Your task to perform on an android device: turn on javascript in the chrome app Image 0: 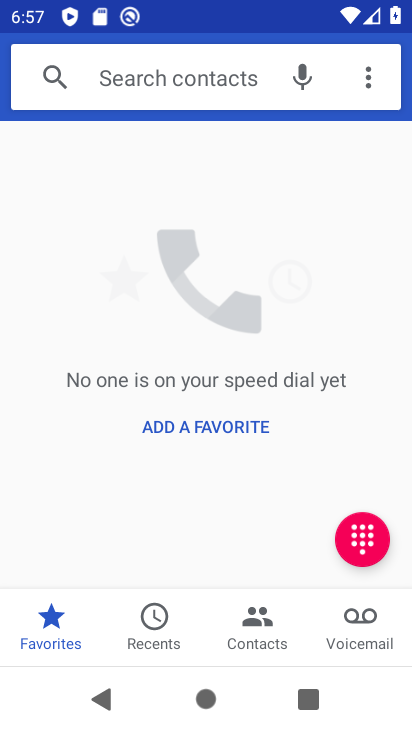
Step 0: press home button
Your task to perform on an android device: turn on javascript in the chrome app Image 1: 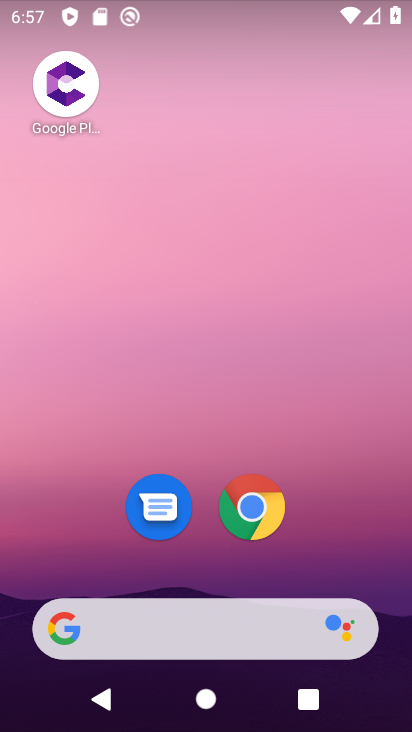
Step 1: click (260, 503)
Your task to perform on an android device: turn on javascript in the chrome app Image 2: 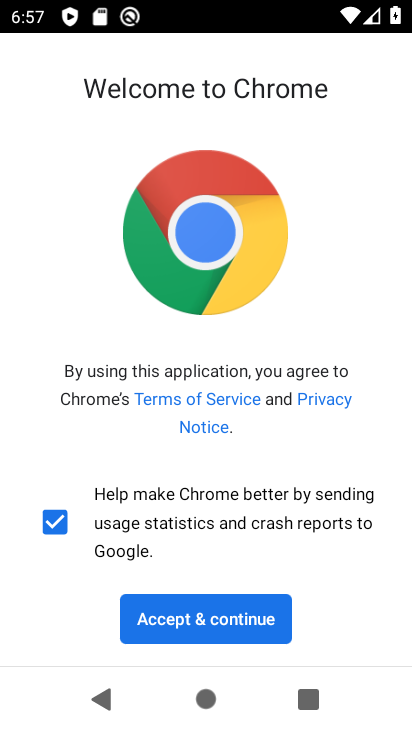
Step 2: click (220, 626)
Your task to perform on an android device: turn on javascript in the chrome app Image 3: 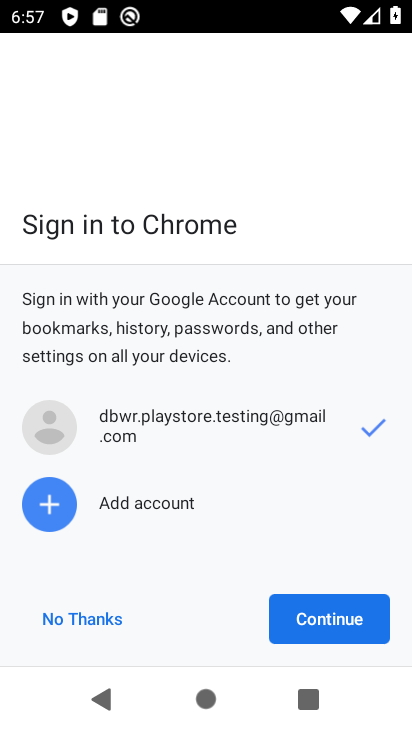
Step 3: click (280, 611)
Your task to perform on an android device: turn on javascript in the chrome app Image 4: 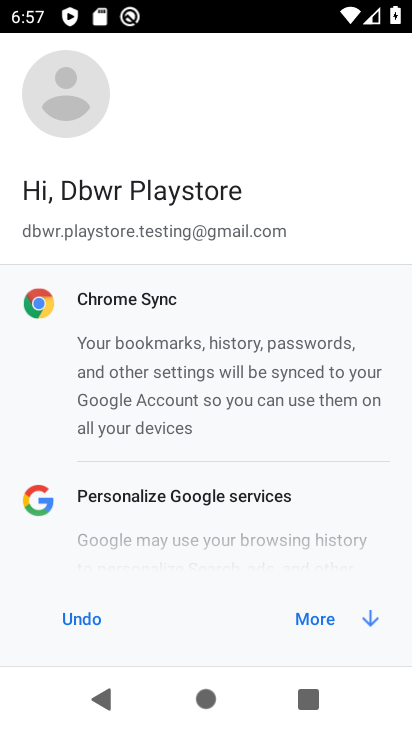
Step 4: click (329, 616)
Your task to perform on an android device: turn on javascript in the chrome app Image 5: 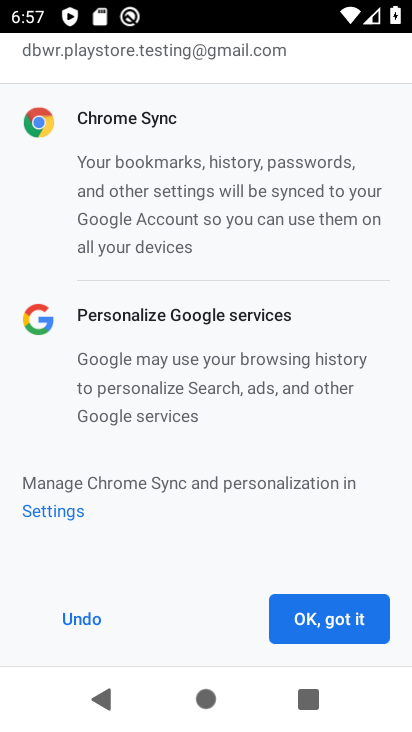
Step 5: click (328, 616)
Your task to perform on an android device: turn on javascript in the chrome app Image 6: 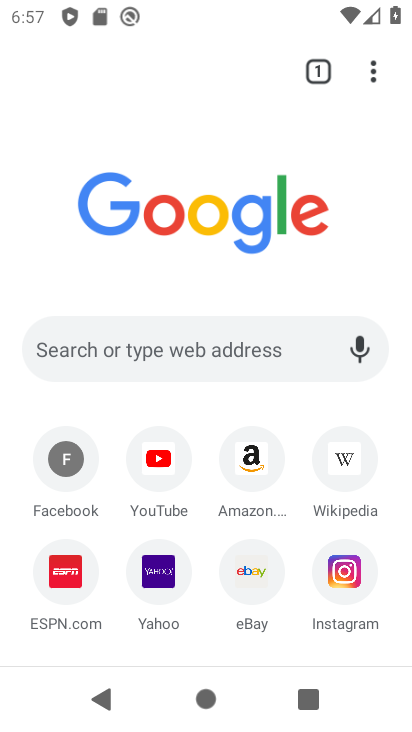
Step 6: click (372, 77)
Your task to perform on an android device: turn on javascript in the chrome app Image 7: 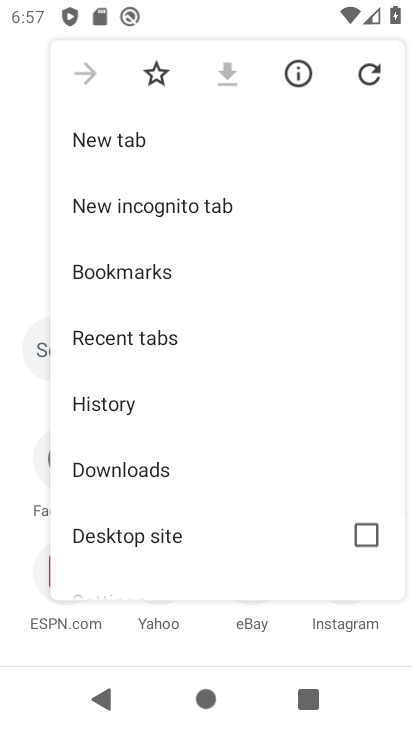
Step 7: drag from (244, 454) to (258, 160)
Your task to perform on an android device: turn on javascript in the chrome app Image 8: 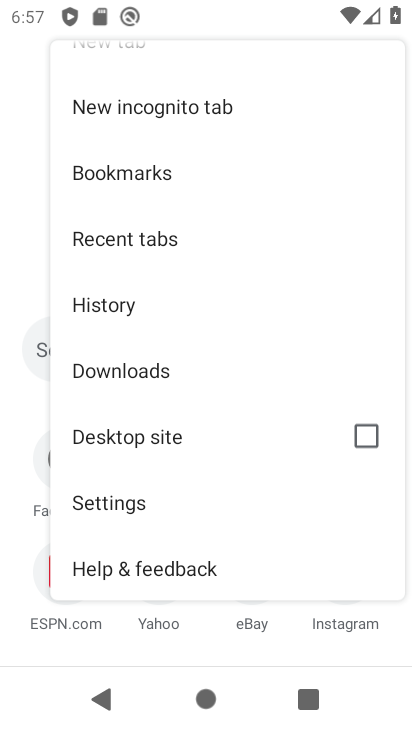
Step 8: click (168, 515)
Your task to perform on an android device: turn on javascript in the chrome app Image 9: 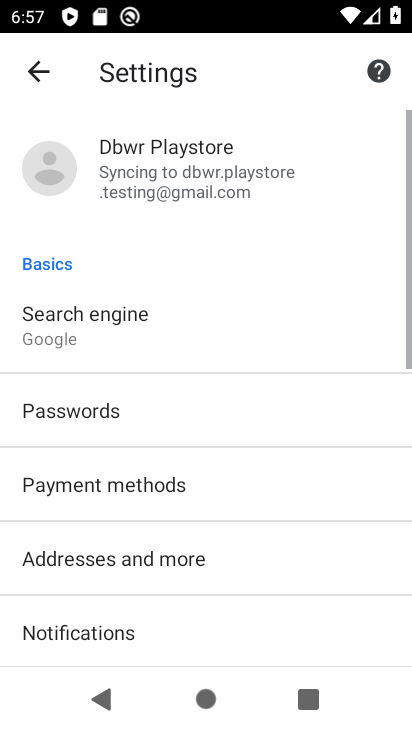
Step 9: drag from (174, 547) to (165, 114)
Your task to perform on an android device: turn on javascript in the chrome app Image 10: 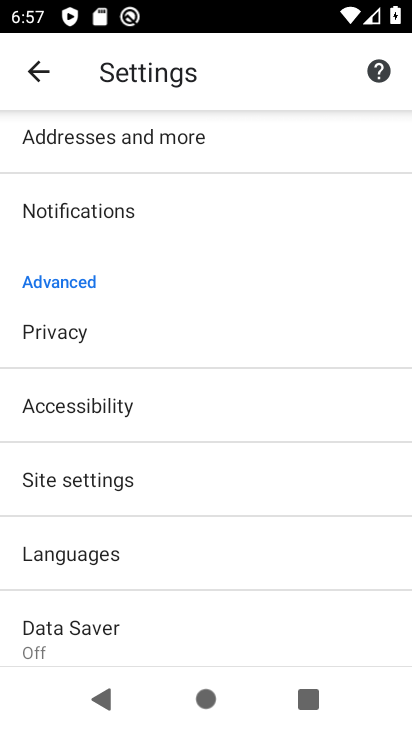
Step 10: click (110, 475)
Your task to perform on an android device: turn on javascript in the chrome app Image 11: 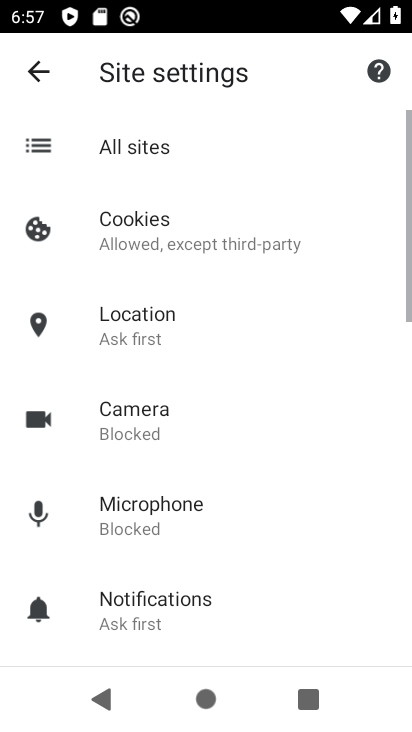
Step 11: drag from (146, 590) to (165, 200)
Your task to perform on an android device: turn on javascript in the chrome app Image 12: 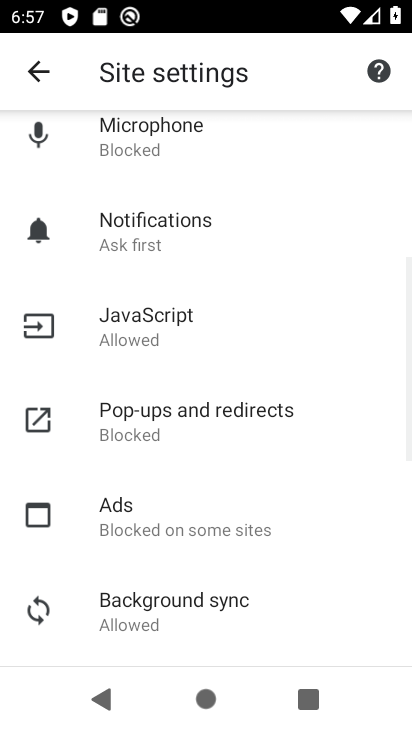
Step 12: click (135, 322)
Your task to perform on an android device: turn on javascript in the chrome app Image 13: 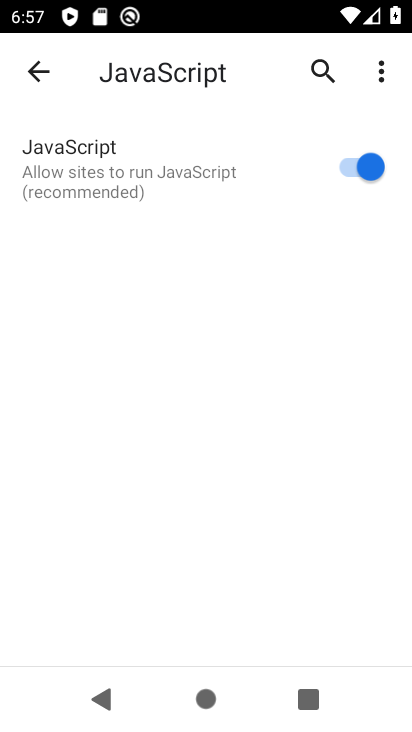
Step 13: task complete